Your task to perform on an android device: turn on javascript in the chrome app Image 0: 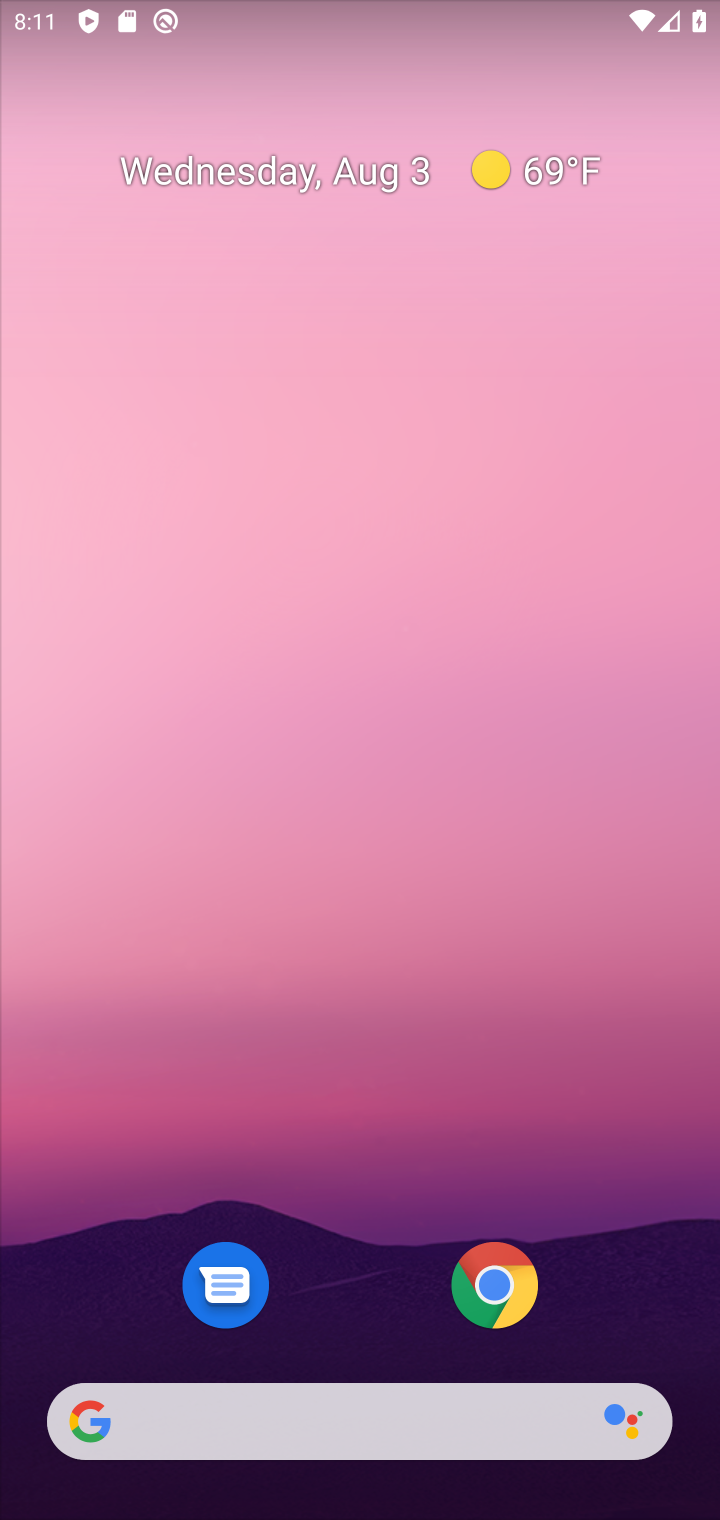
Step 0: drag from (649, 1143) to (596, 318)
Your task to perform on an android device: turn on javascript in the chrome app Image 1: 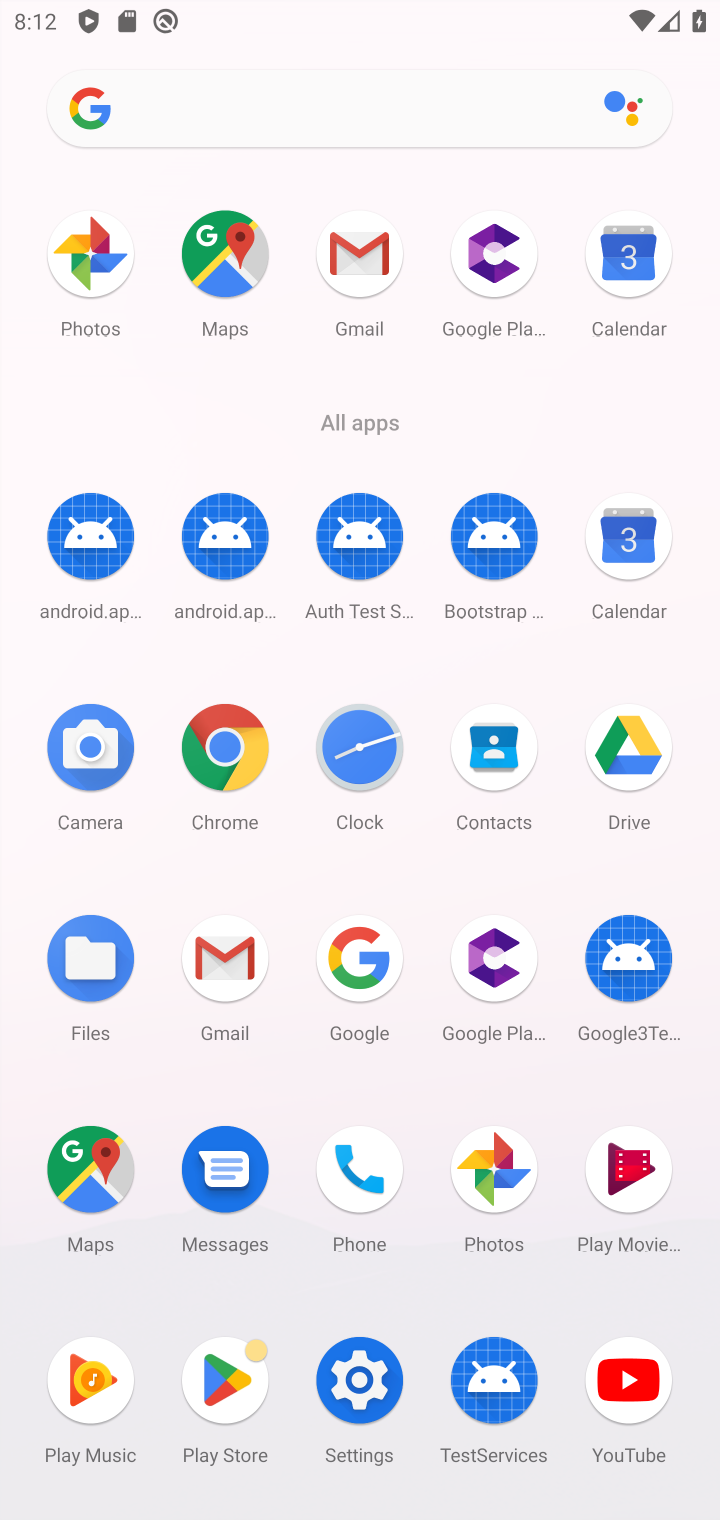
Step 1: click (232, 760)
Your task to perform on an android device: turn on javascript in the chrome app Image 2: 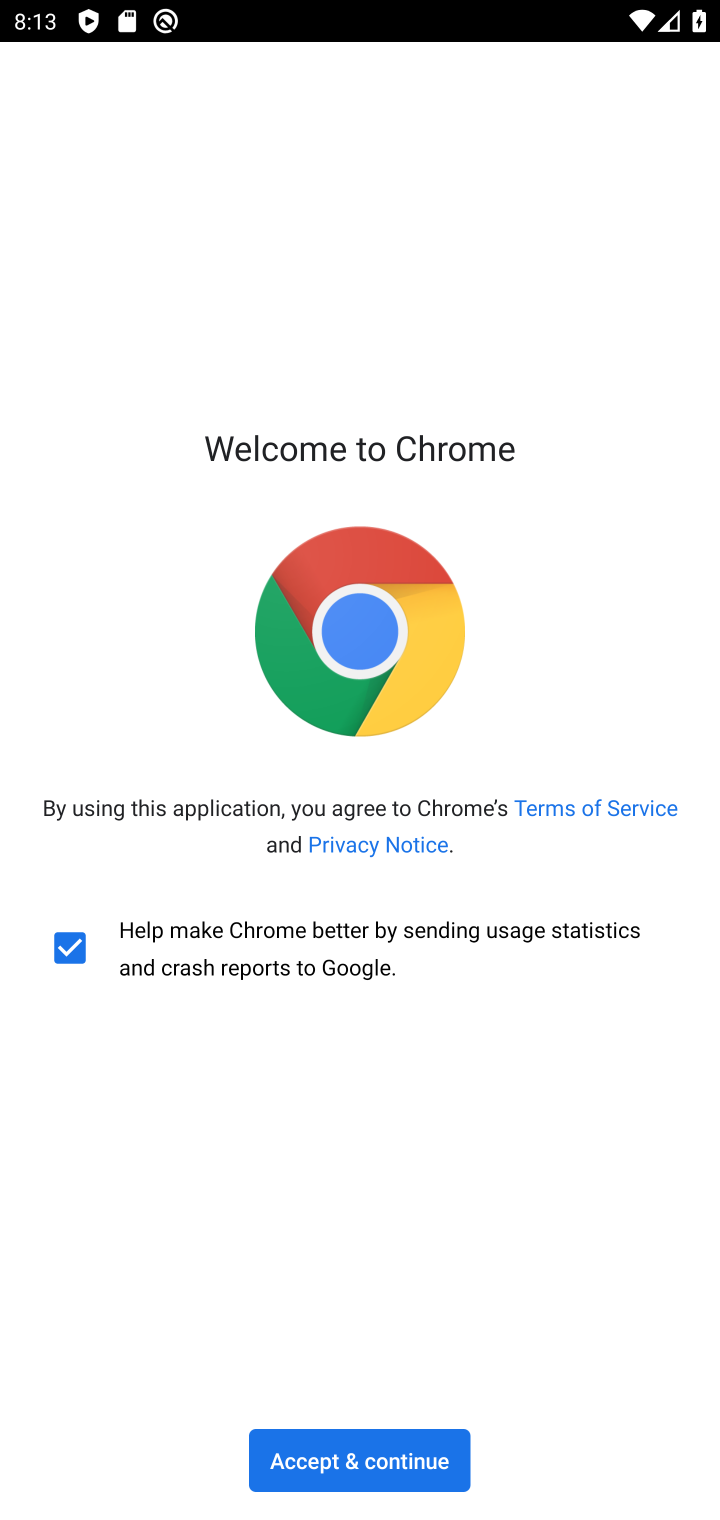
Step 2: click (397, 1468)
Your task to perform on an android device: turn on javascript in the chrome app Image 3: 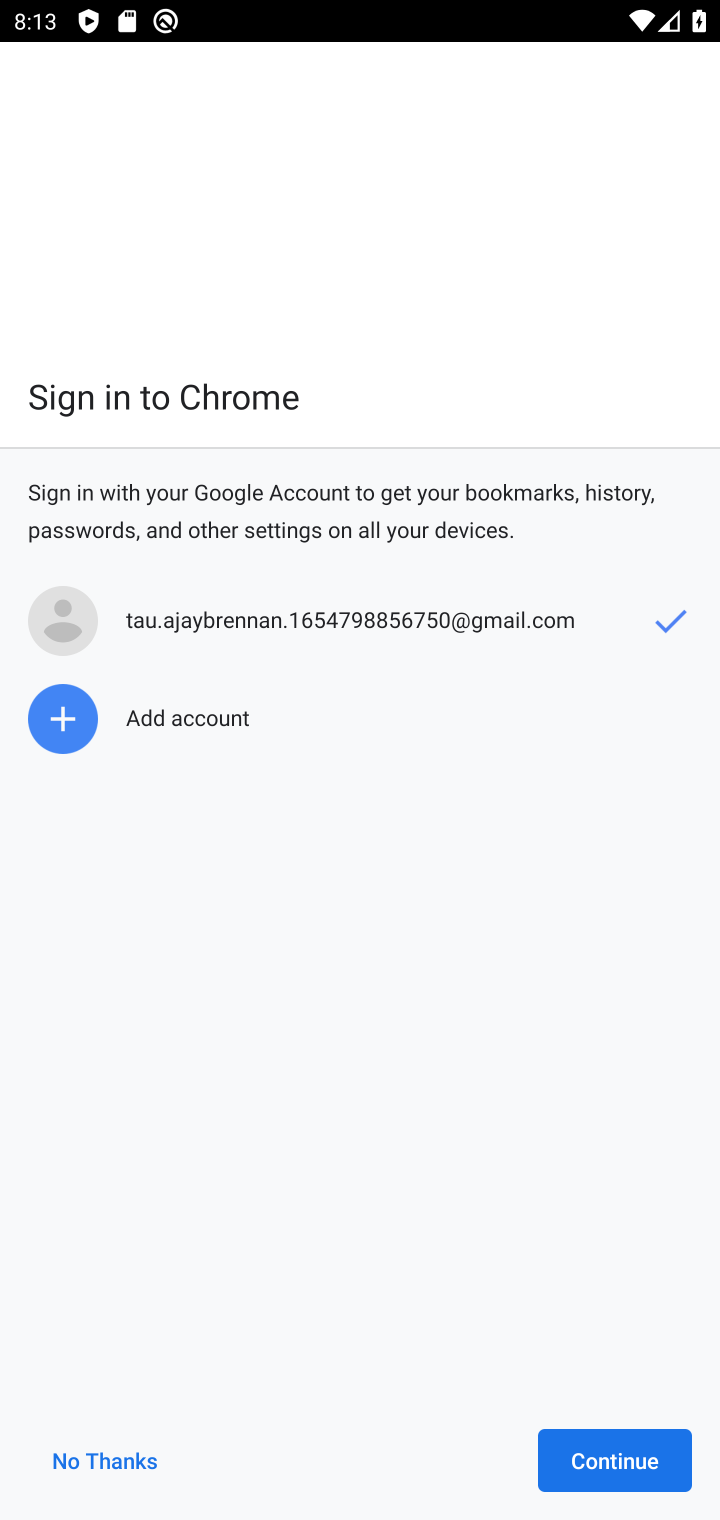
Step 3: click (580, 1462)
Your task to perform on an android device: turn on javascript in the chrome app Image 4: 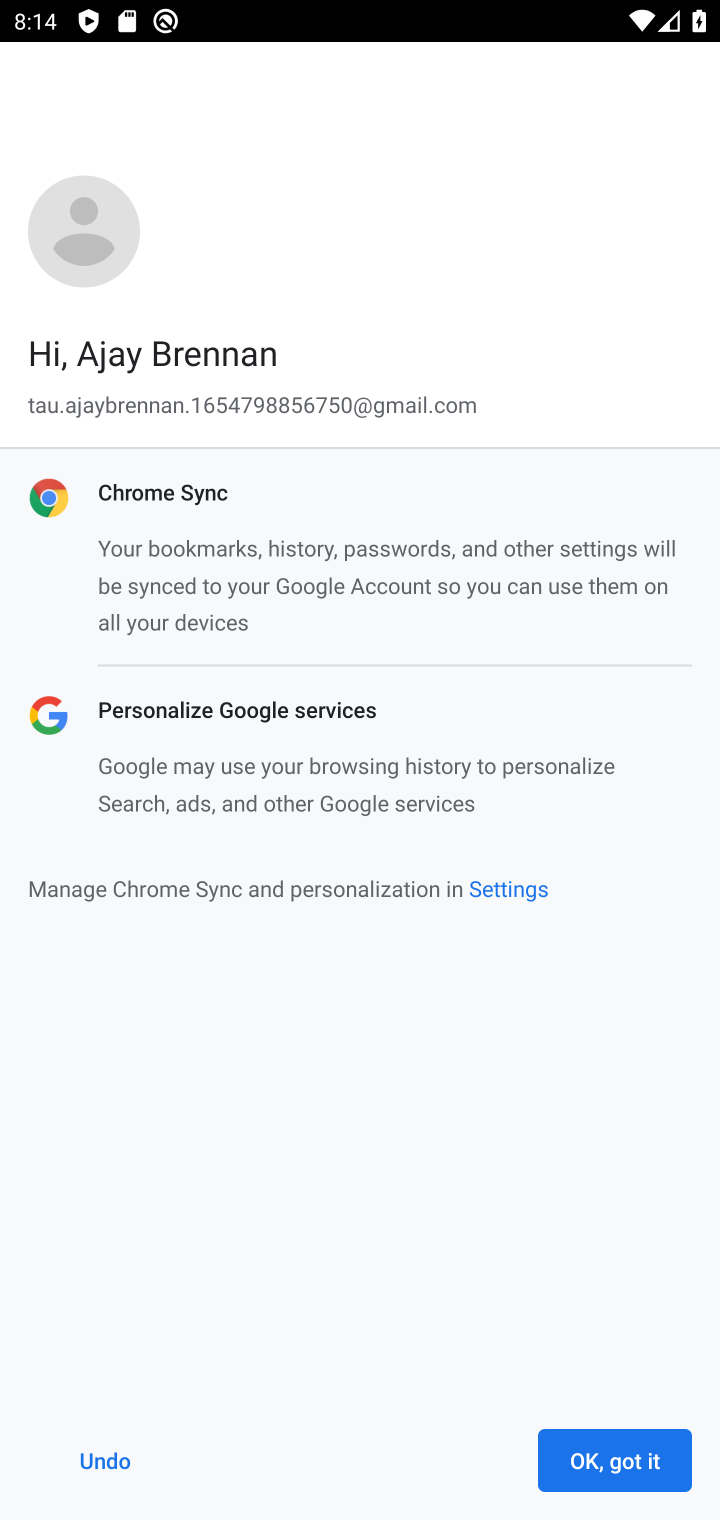
Step 4: click (644, 1444)
Your task to perform on an android device: turn on javascript in the chrome app Image 5: 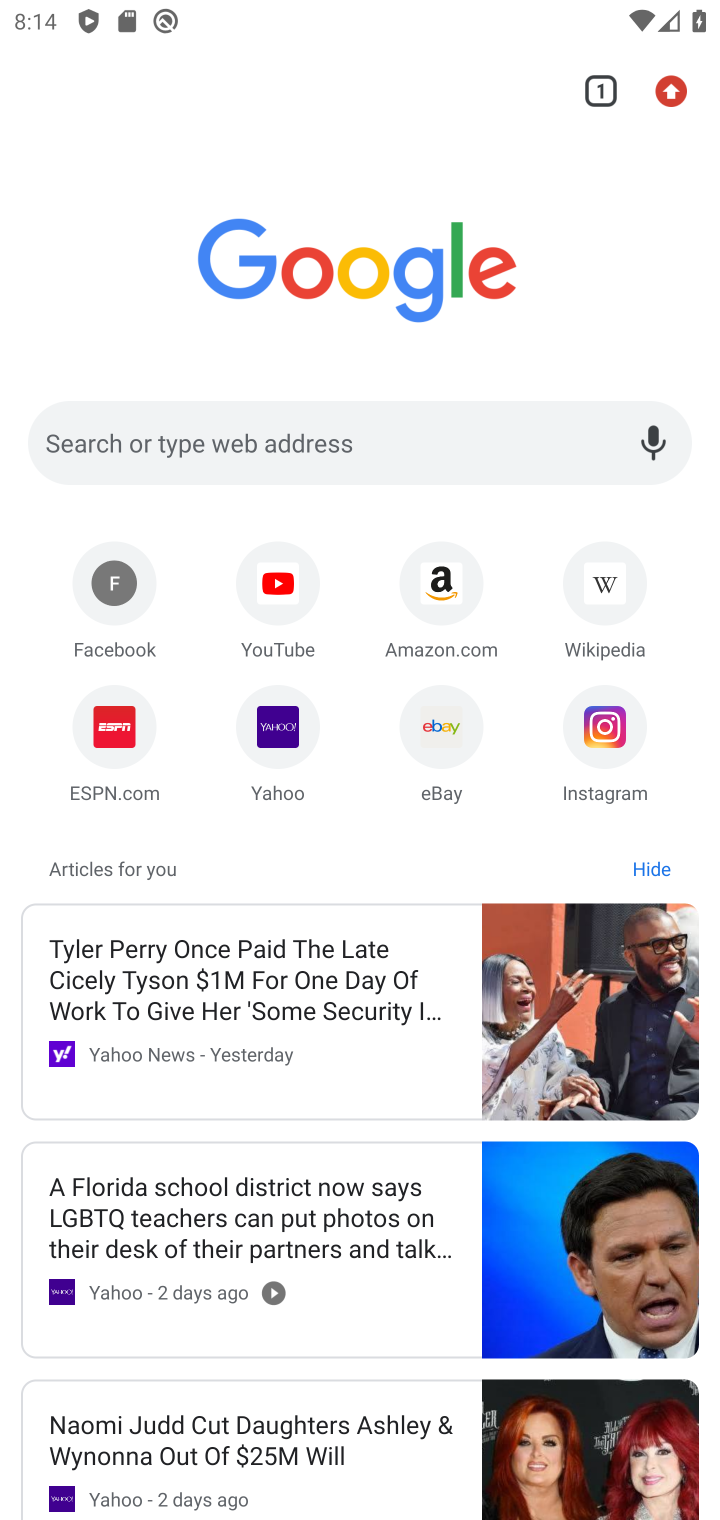
Step 5: click (669, 76)
Your task to perform on an android device: turn on javascript in the chrome app Image 6: 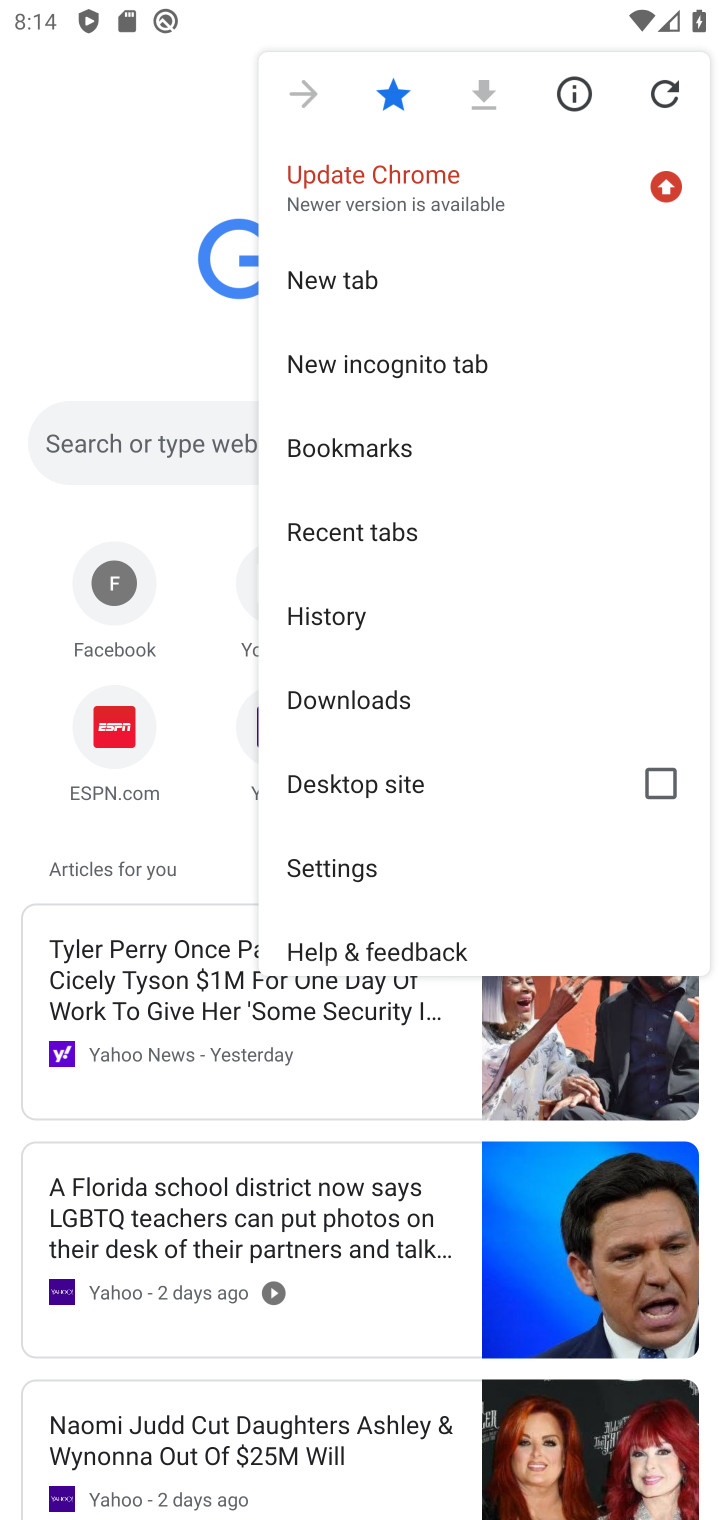
Step 6: click (382, 852)
Your task to perform on an android device: turn on javascript in the chrome app Image 7: 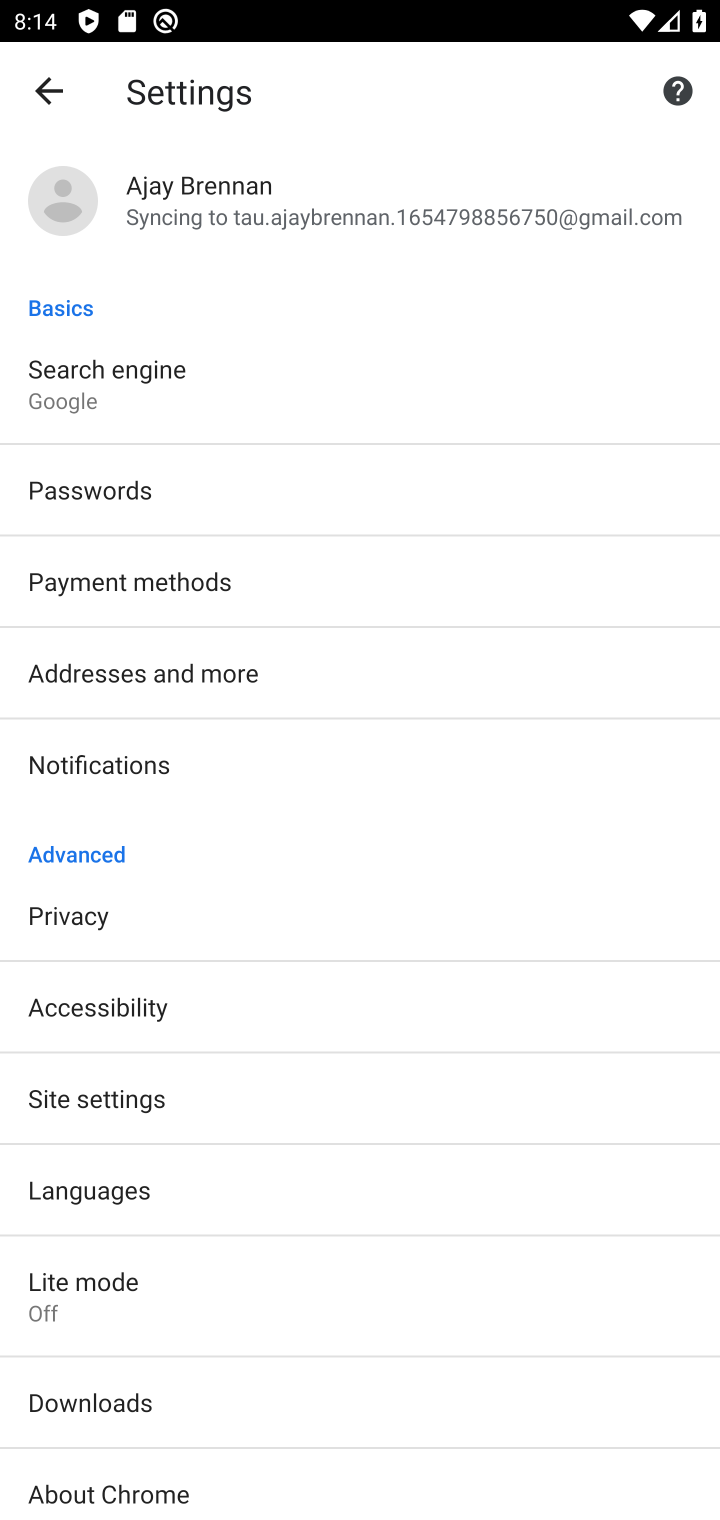
Step 7: click (242, 1091)
Your task to perform on an android device: turn on javascript in the chrome app Image 8: 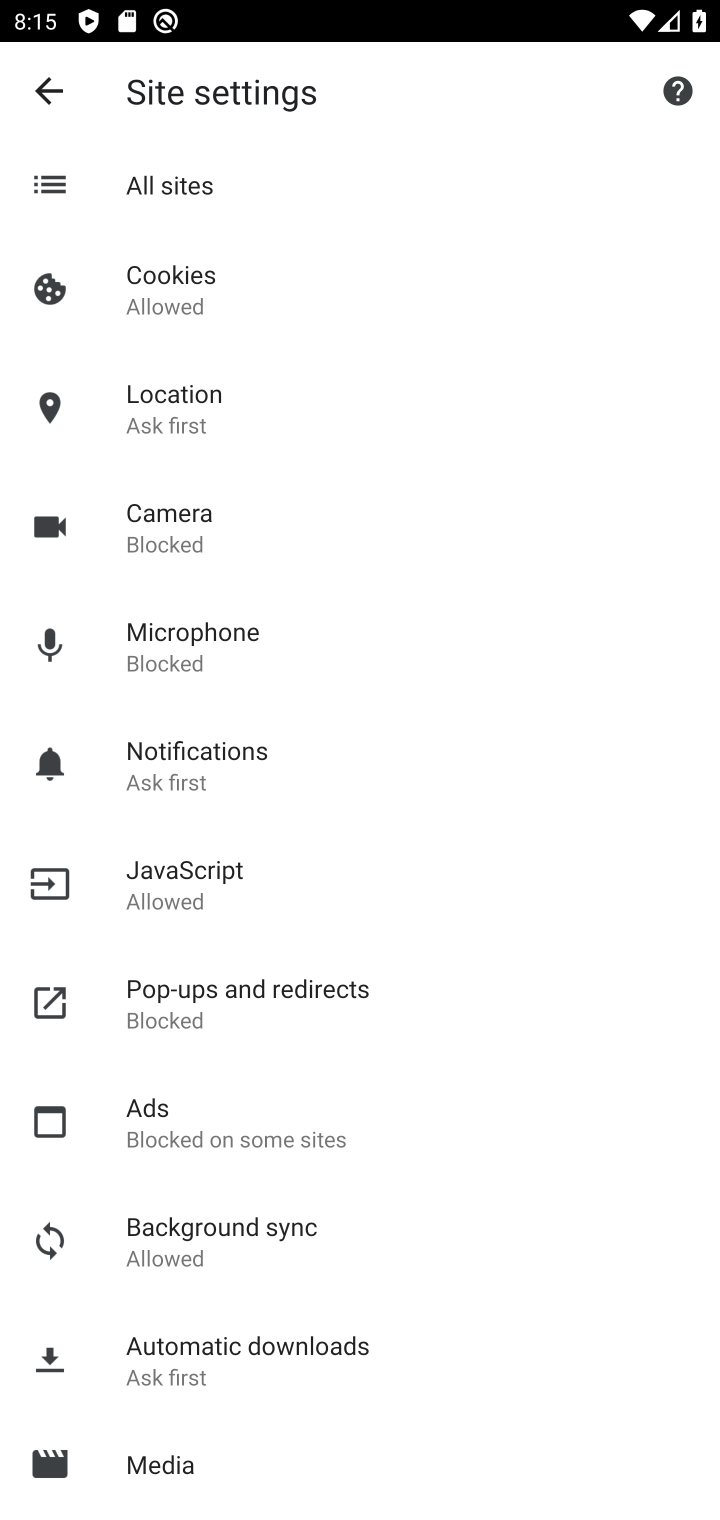
Step 8: click (279, 876)
Your task to perform on an android device: turn on javascript in the chrome app Image 9: 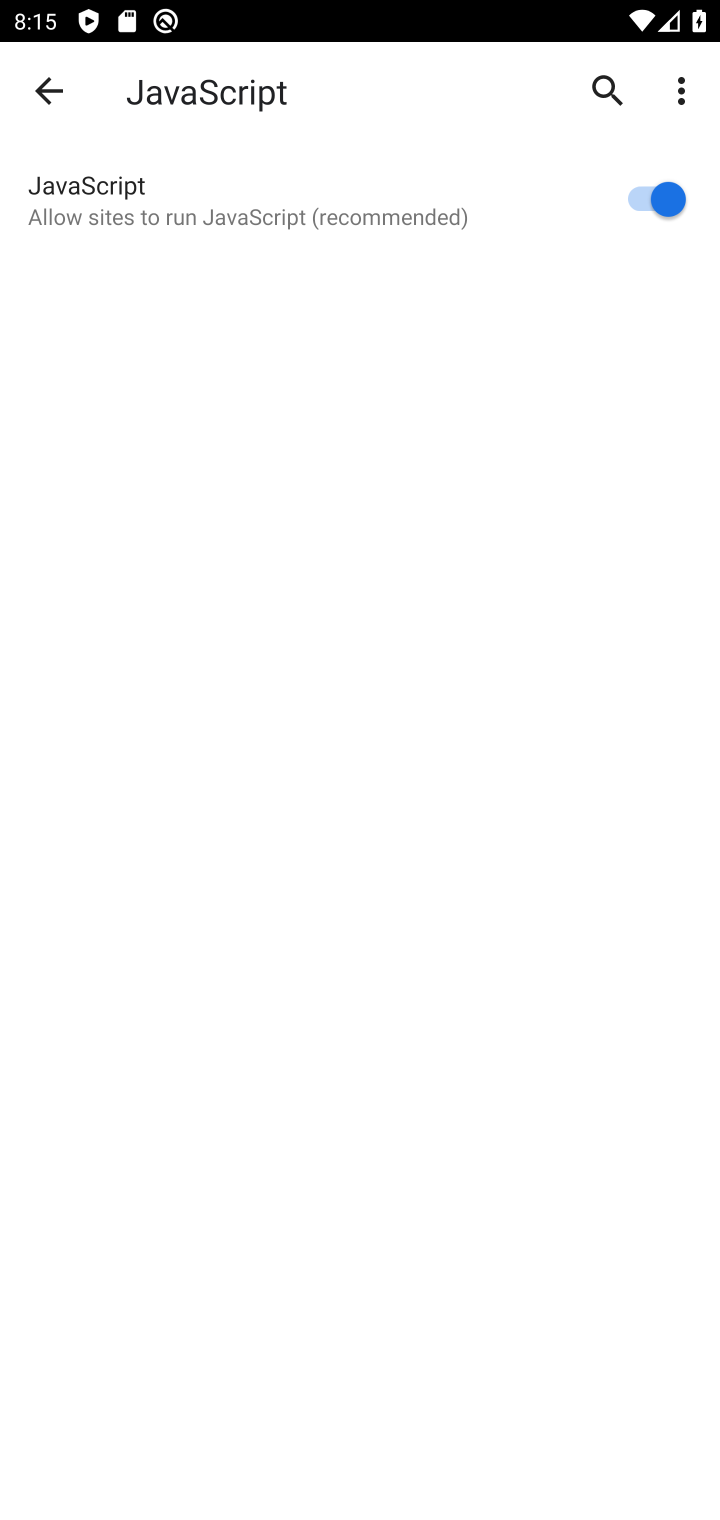
Step 9: task complete